Your task to perform on an android device: What is the capital of England? Image 0: 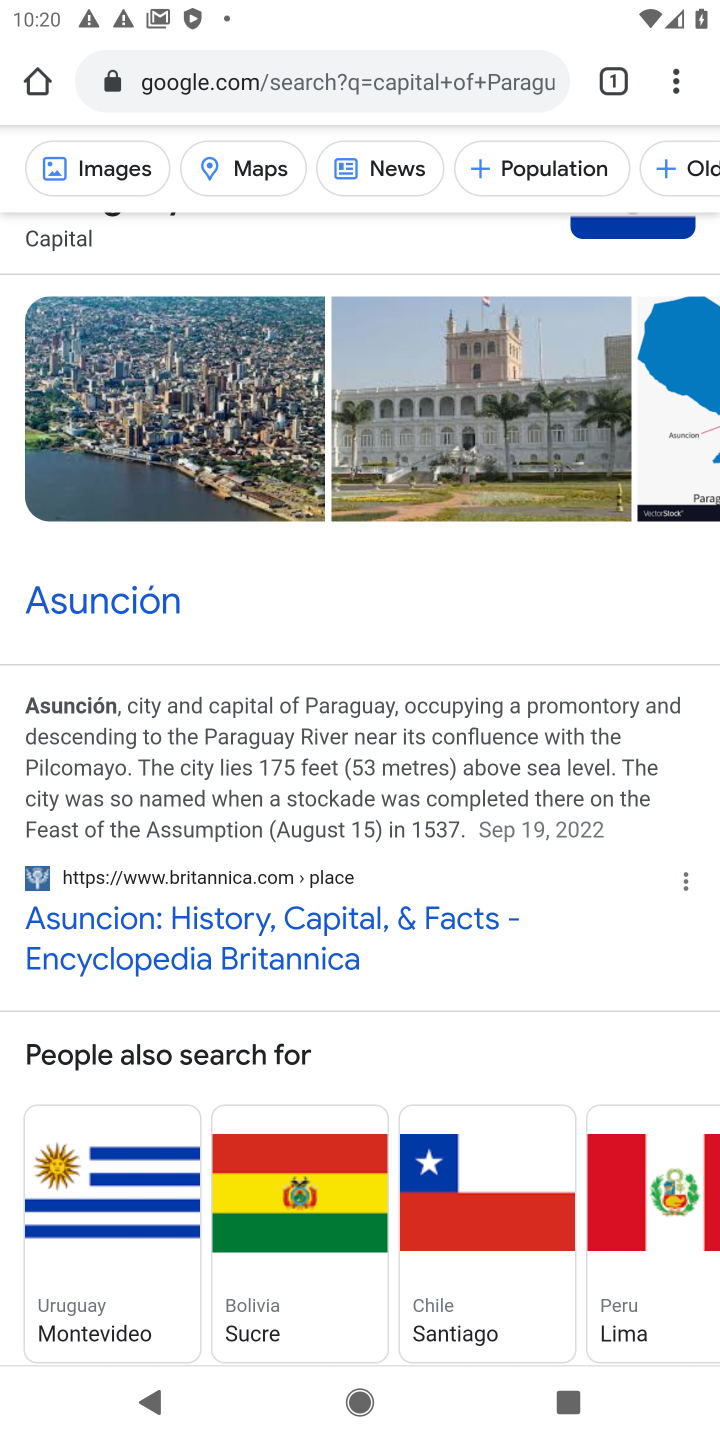
Step 0: click (377, 86)
Your task to perform on an android device: What is the capital of England? Image 1: 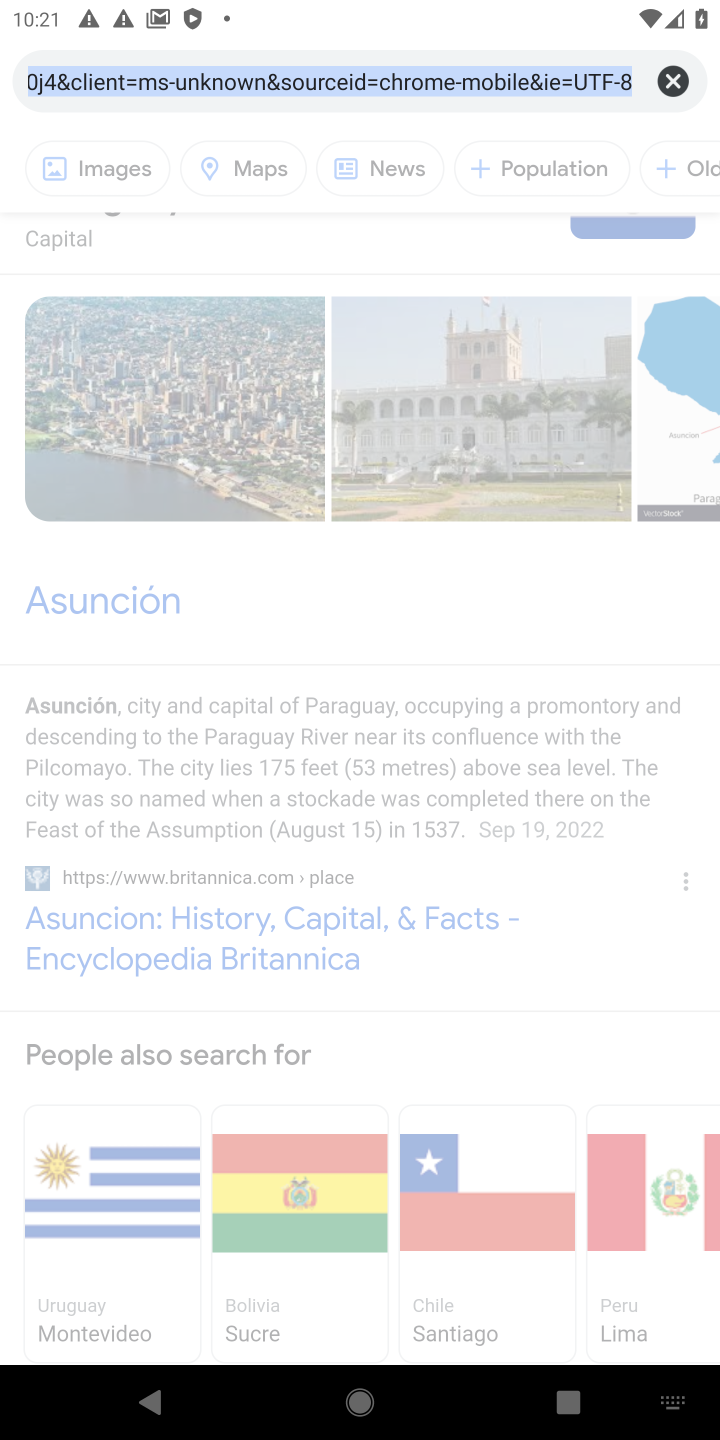
Step 1: type "capital of England"
Your task to perform on an android device: What is the capital of England? Image 2: 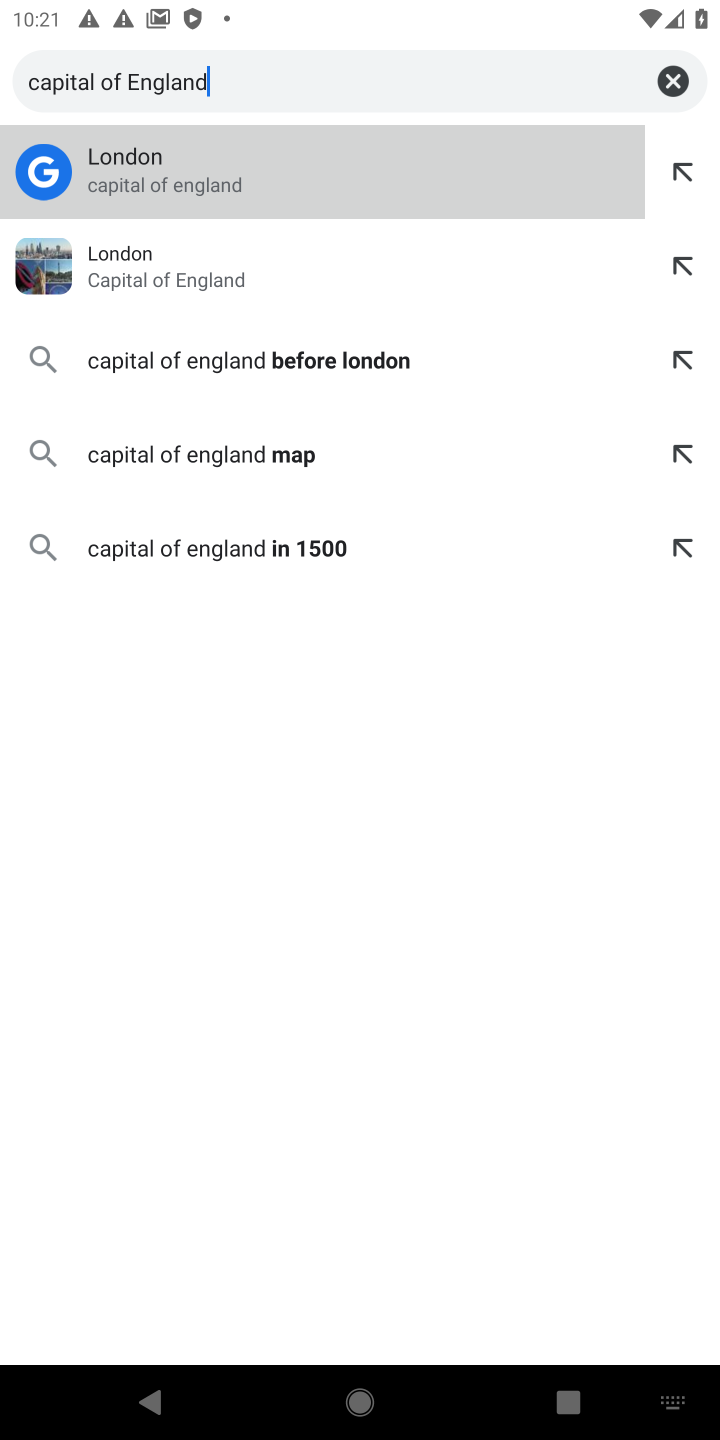
Step 2: press enter
Your task to perform on an android device: What is the capital of England? Image 3: 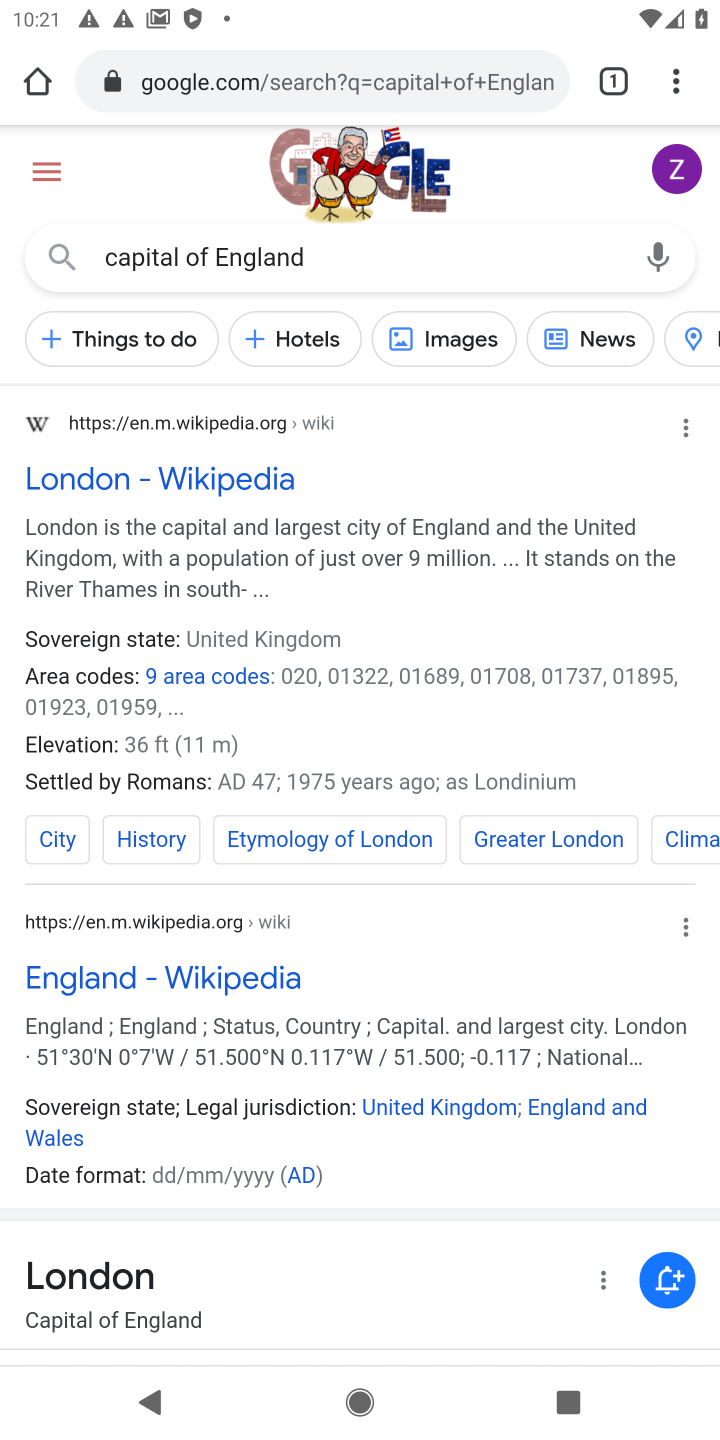
Step 3: task complete